Your task to perform on an android device: delete browsing data in the chrome app Image 0: 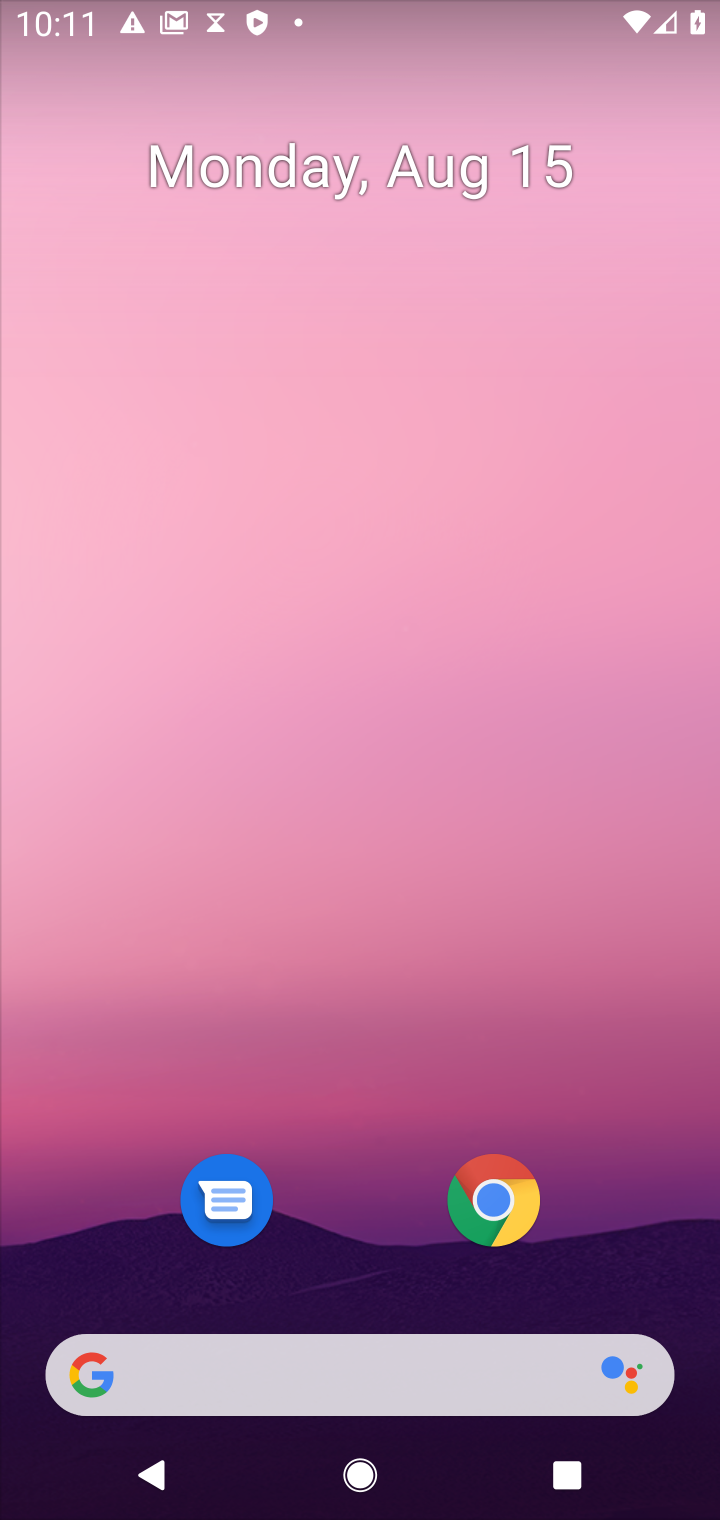
Step 0: drag from (295, 1223) to (289, 465)
Your task to perform on an android device: delete browsing data in the chrome app Image 1: 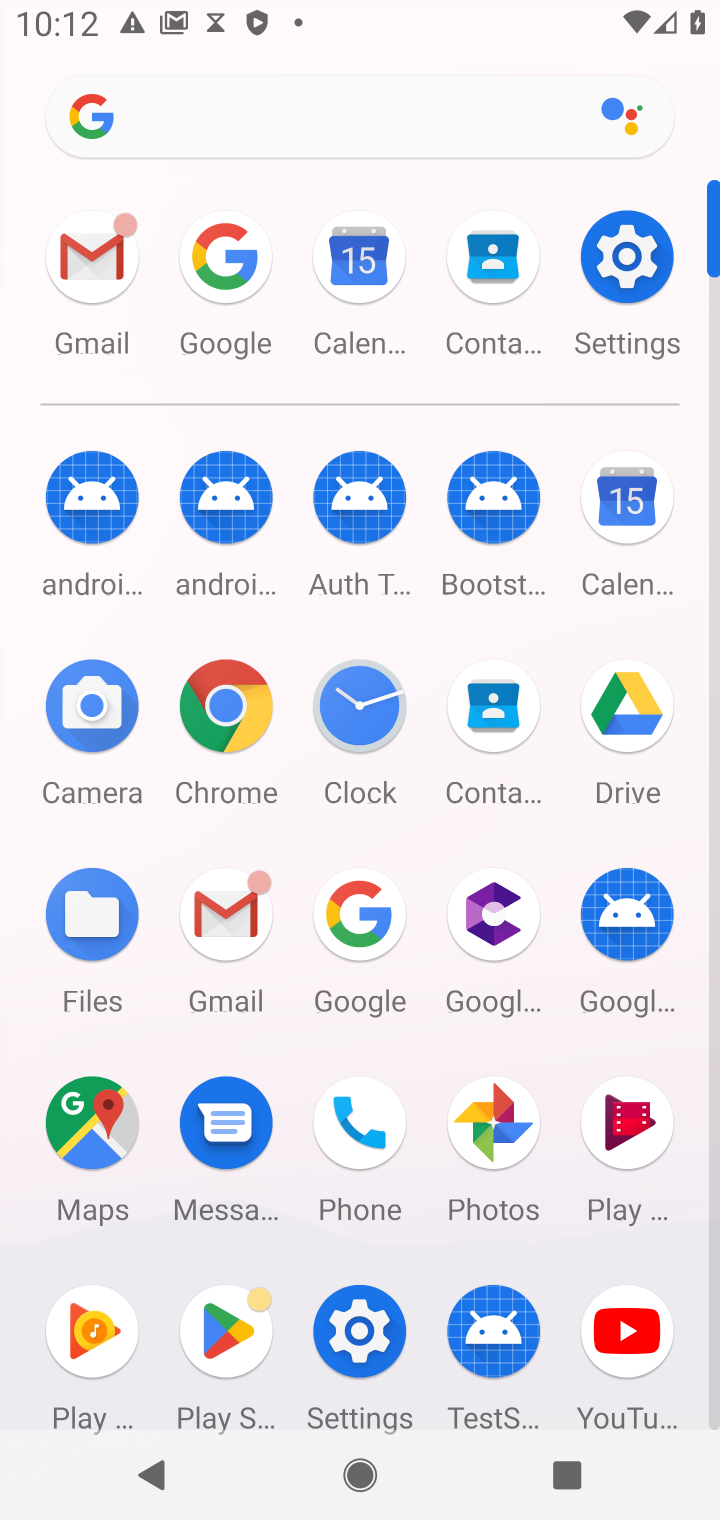
Step 1: click (247, 706)
Your task to perform on an android device: delete browsing data in the chrome app Image 2: 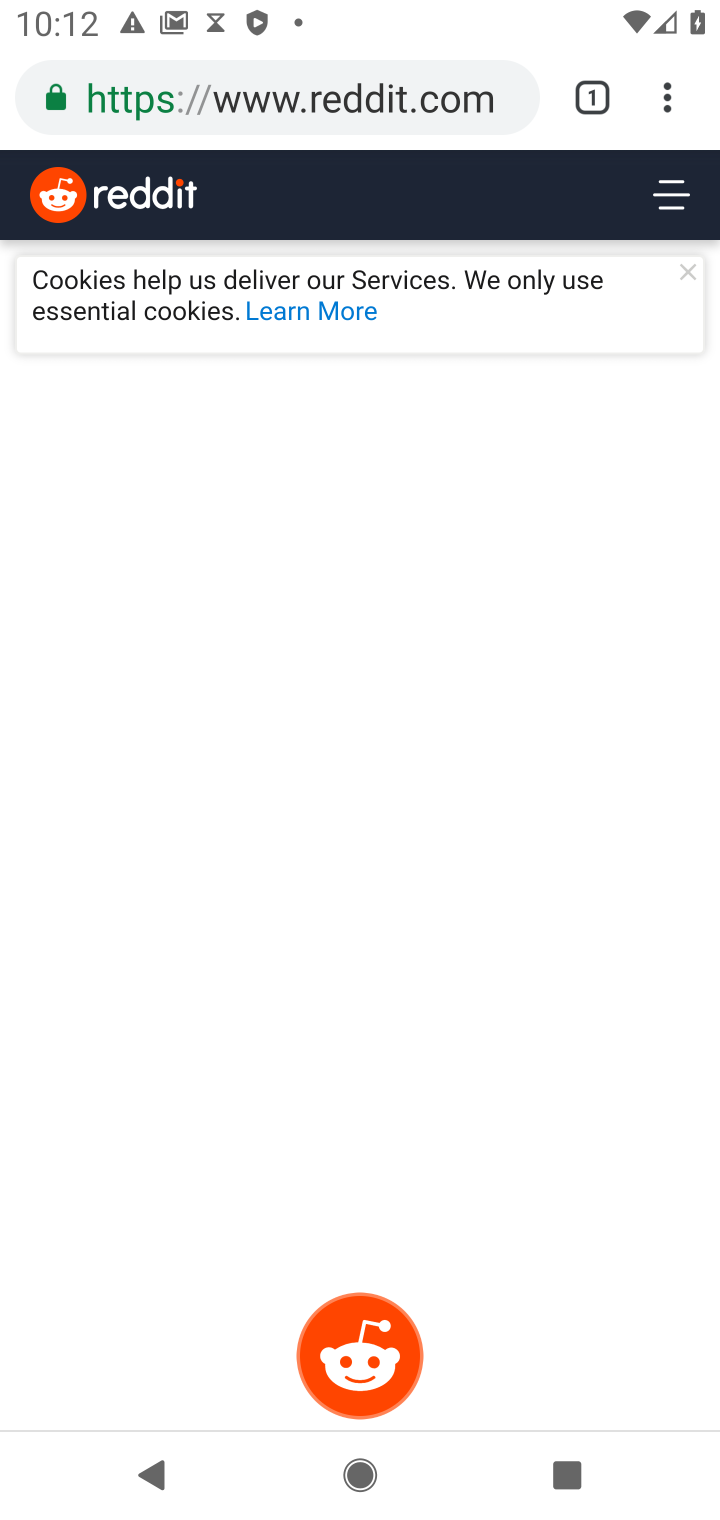
Step 2: click (674, 100)
Your task to perform on an android device: delete browsing data in the chrome app Image 3: 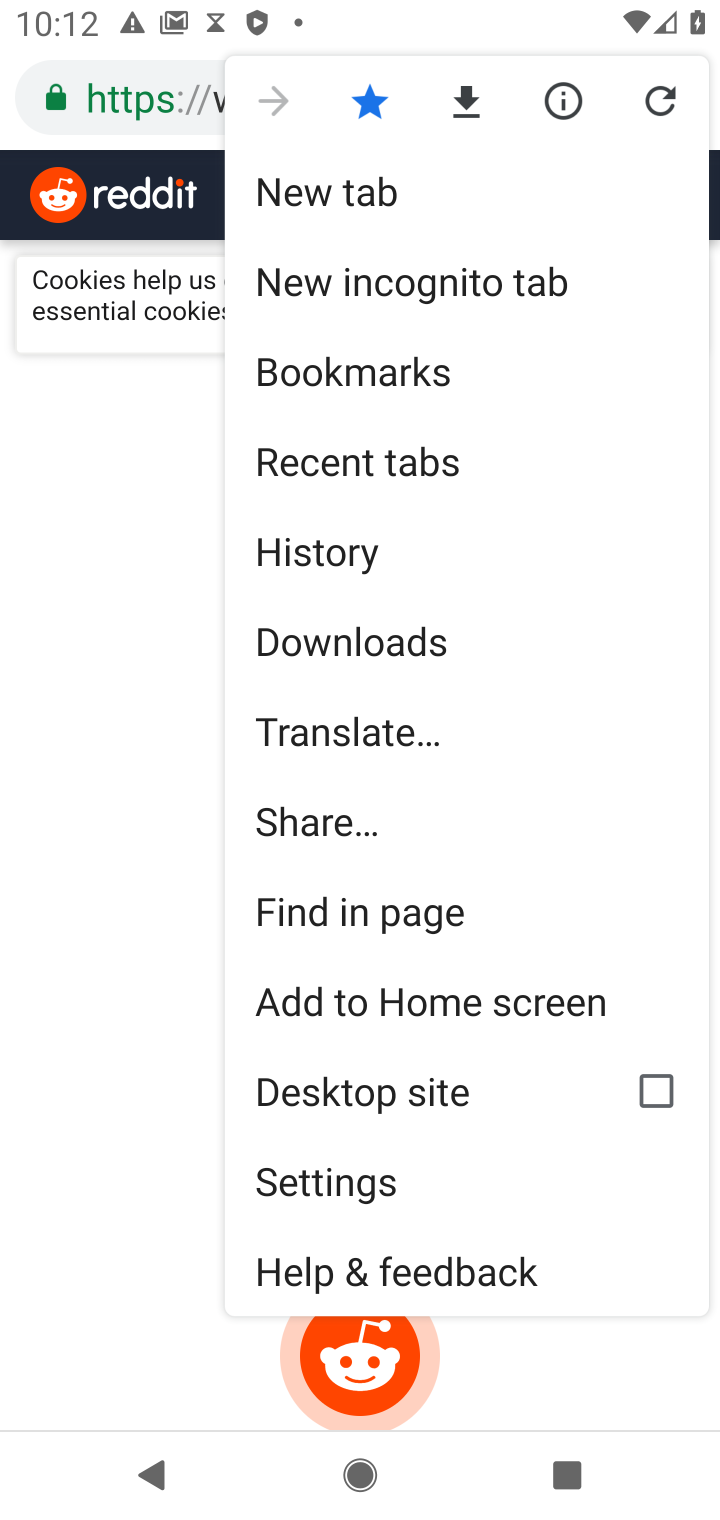
Step 3: click (386, 537)
Your task to perform on an android device: delete browsing data in the chrome app Image 4: 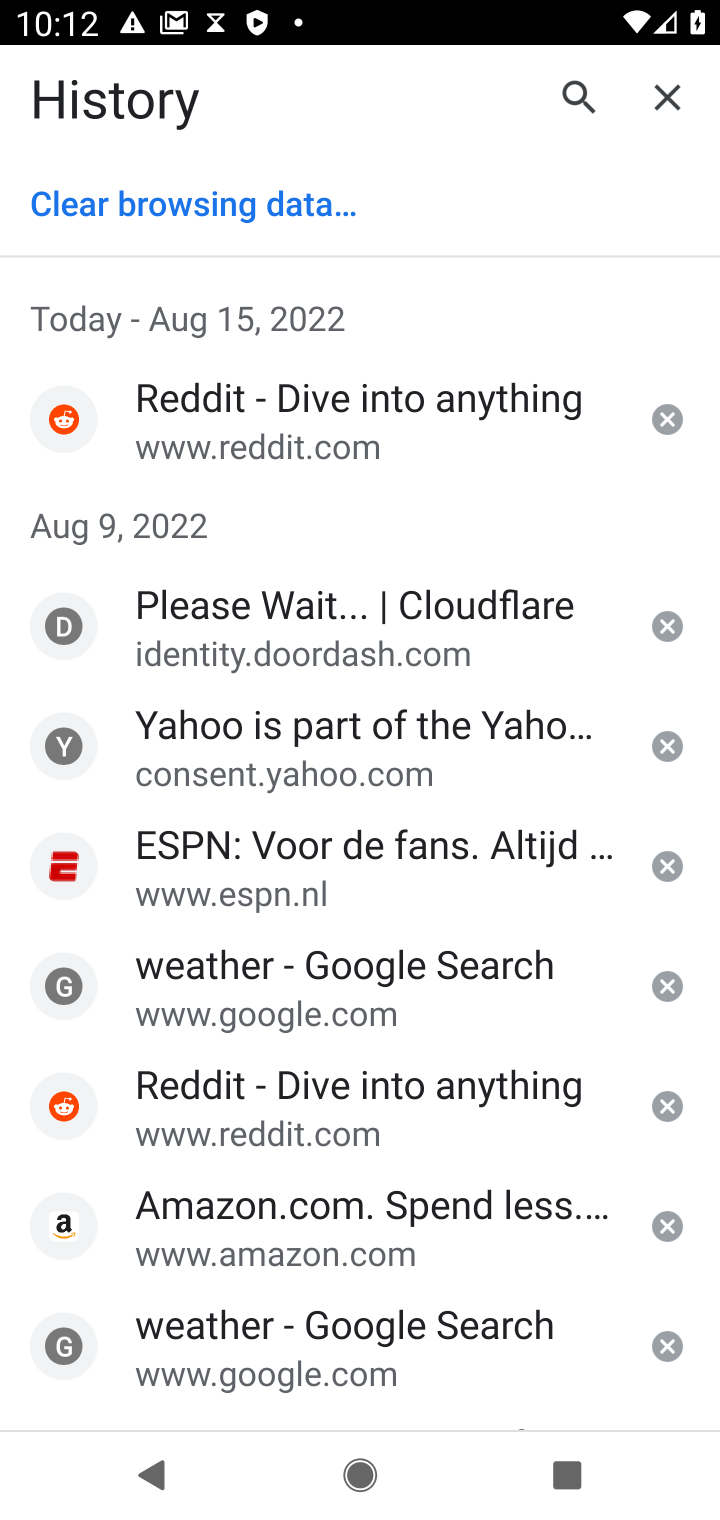
Step 4: click (312, 198)
Your task to perform on an android device: delete browsing data in the chrome app Image 5: 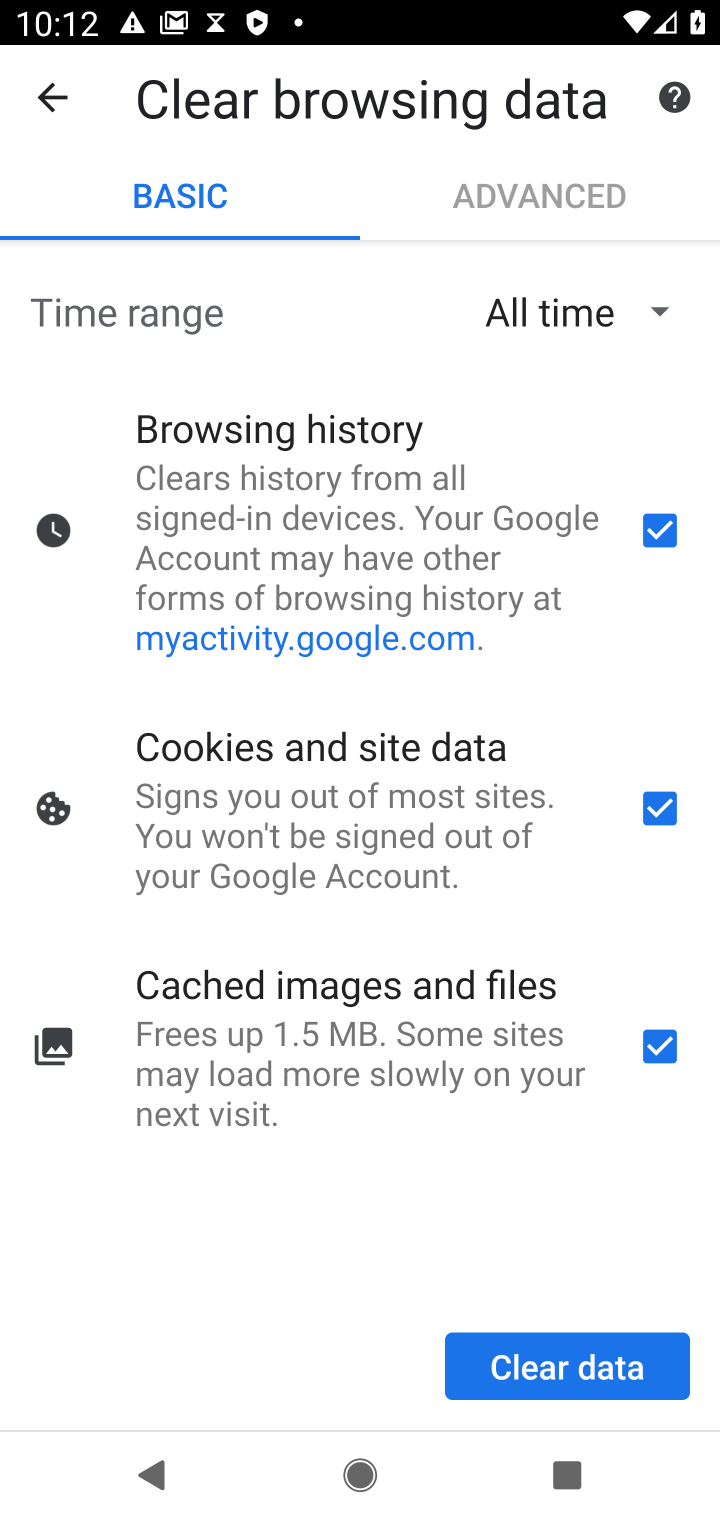
Step 5: click (598, 1381)
Your task to perform on an android device: delete browsing data in the chrome app Image 6: 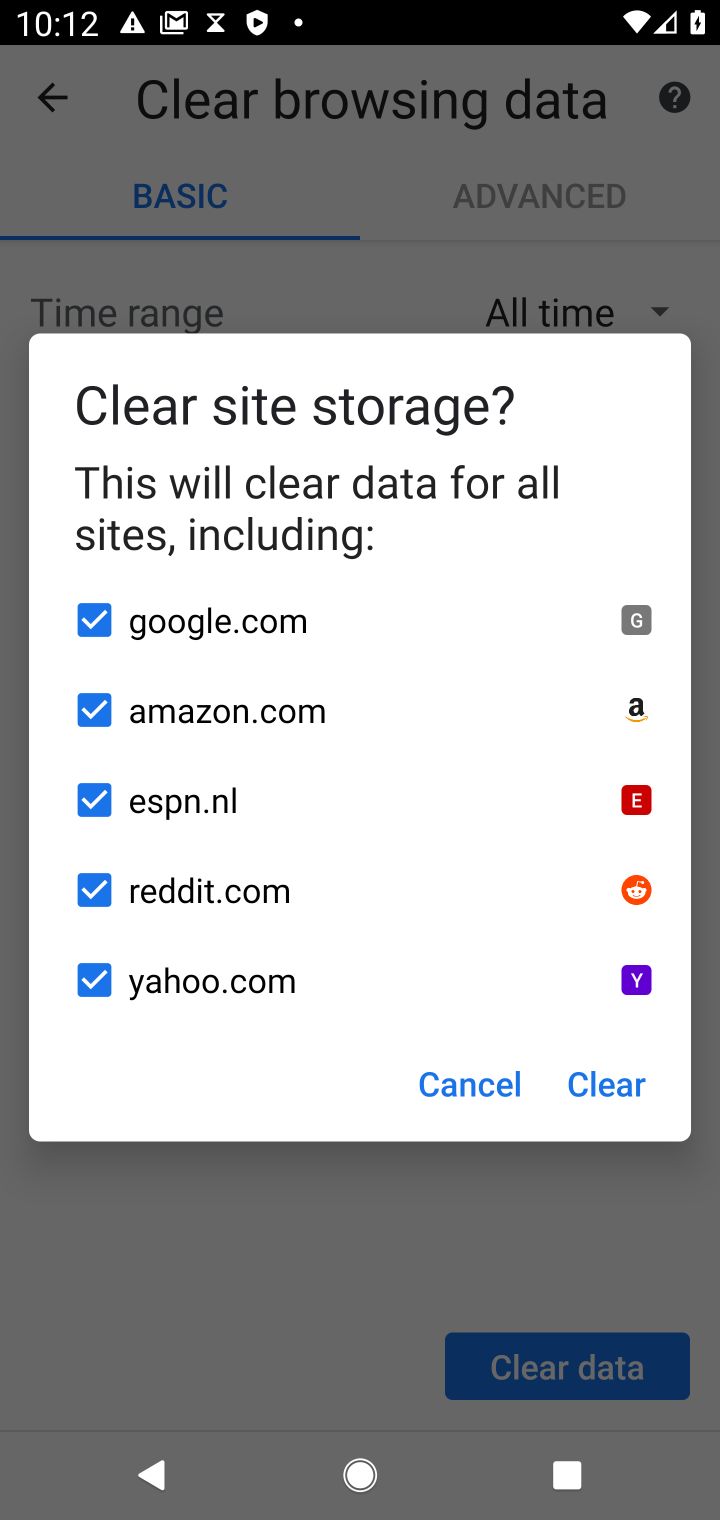
Step 6: click (600, 1095)
Your task to perform on an android device: delete browsing data in the chrome app Image 7: 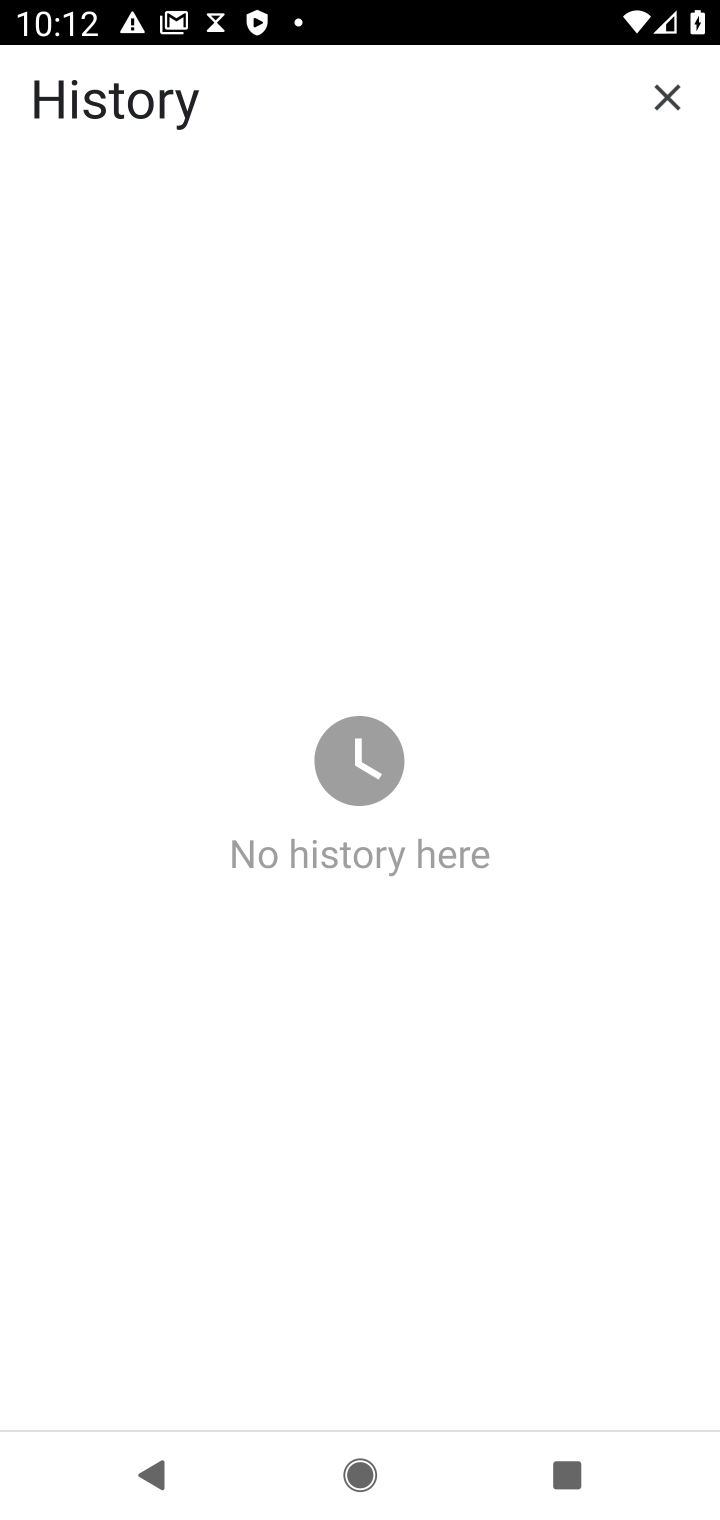
Step 7: task complete